Your task to perform on an android device: toggle translation in the chrome app Image 0: 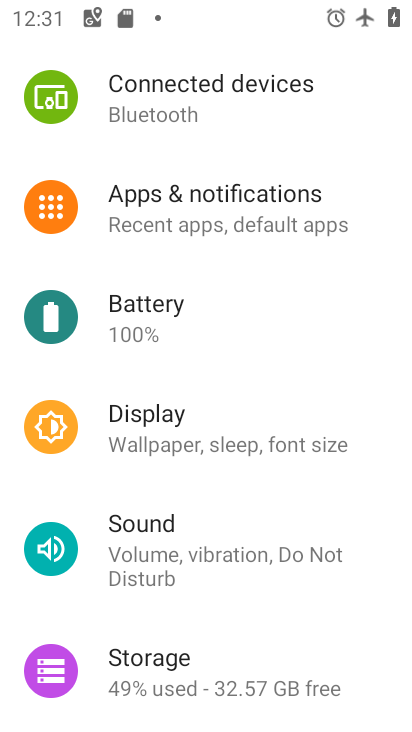
Step 0: press home button
Your task to perform on an android device: toggle translation in the chrome app Image 1: 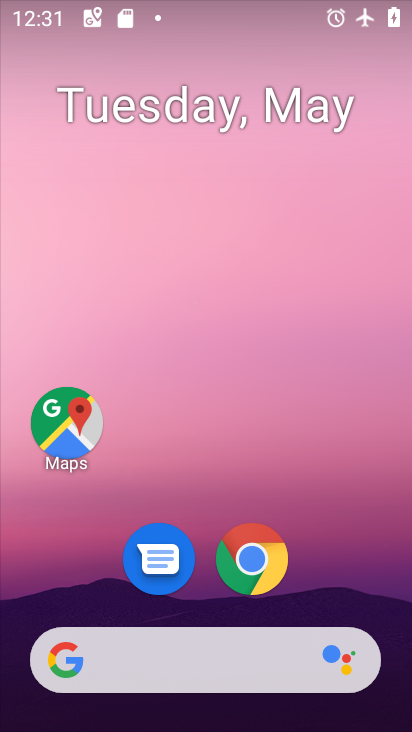
Step 1: drag from (399, 609) to (251, 185)
Your task to perform on an android device: toggle translation in the chrome app Image 2: 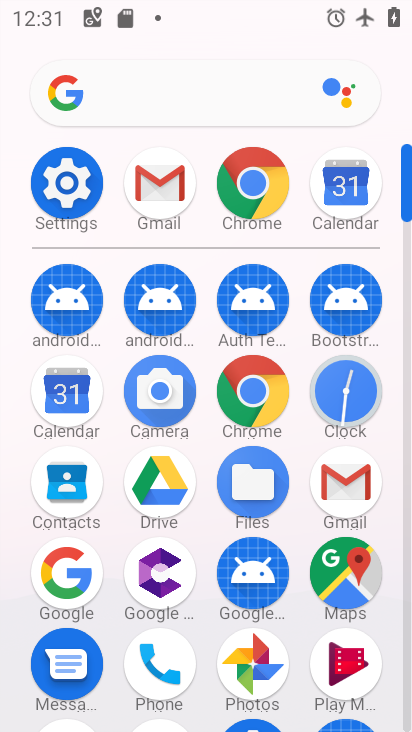
Step 2: click (256, 174)
Your task to perform on an android device: toggle translation in the chrome app Image 3: 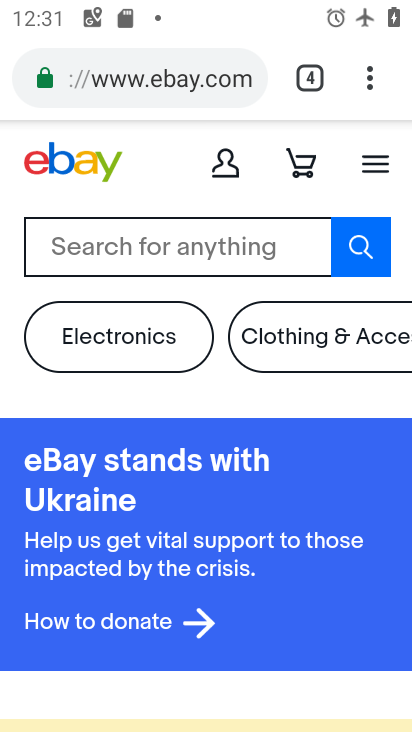
Step 3: click (375, 73)
Your task to perform on an android device: toggle translation in the chrome app Image 4: 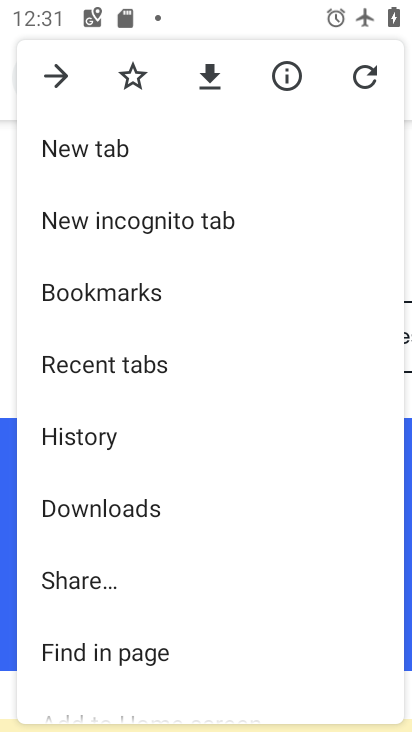
Step 4: drag from (163, 592) to (135, 198)
Your task to perform on an android device: toggle translation in the chrome app Image 5: 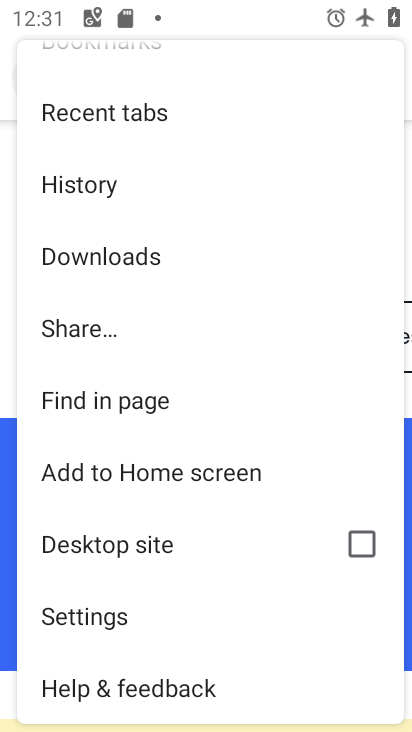
Step 5: click (134, 624)
Your task to perform on an android device: toggle translation in the chrome app Image 6: 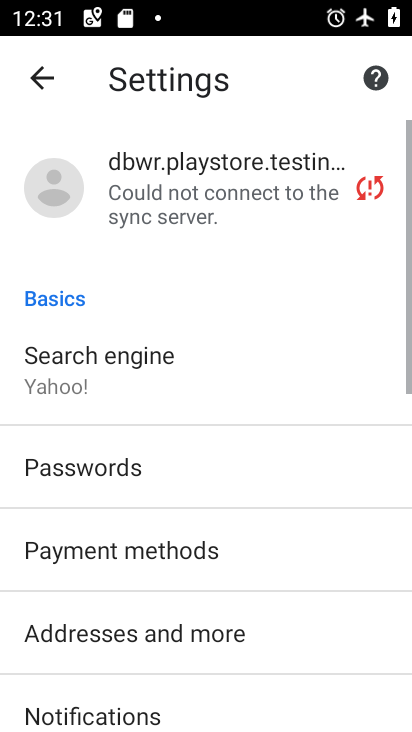
Step 6: drag from (206, 701) to (160, 316)
Your task to perform on an android device: toggle translation in the chrome app Image 7: 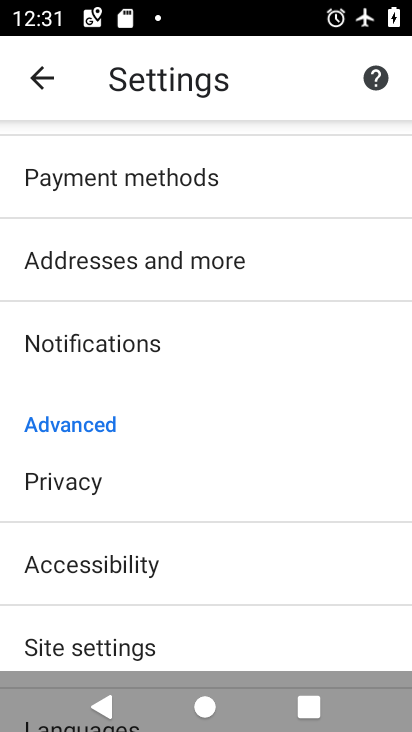
Step 7: drag from (193, 604) to (153, 336)
Your task to perform on an android device: toggle translation in the chrome app Image 8: 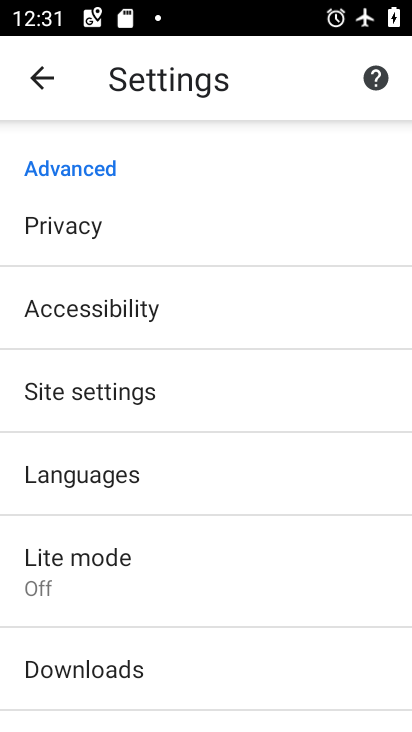
Step 8: click (162, 481)
Your task to perform on an android device: toggle translation in the chrome app Image 9: 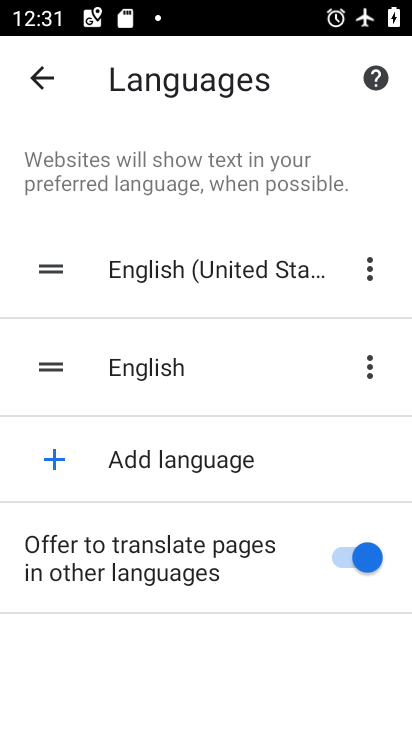
Step 9: click (361, 557)
Your task to perform on an android device: toggle translation in the chrome app Image 10: 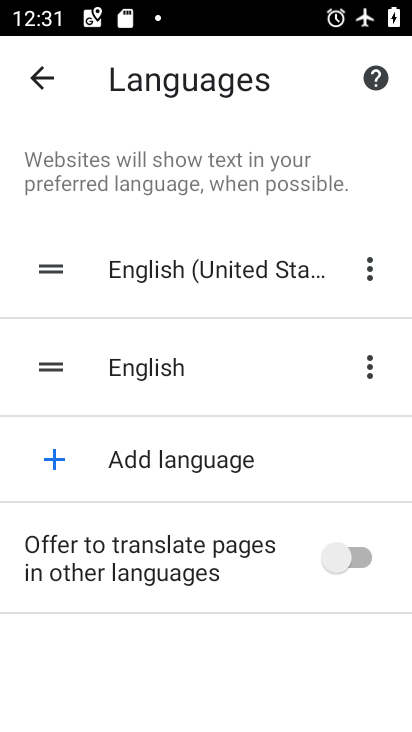
Step 10: task complete